Your task to perform on an android device: turn smart compose on in the gmail app Image 0: 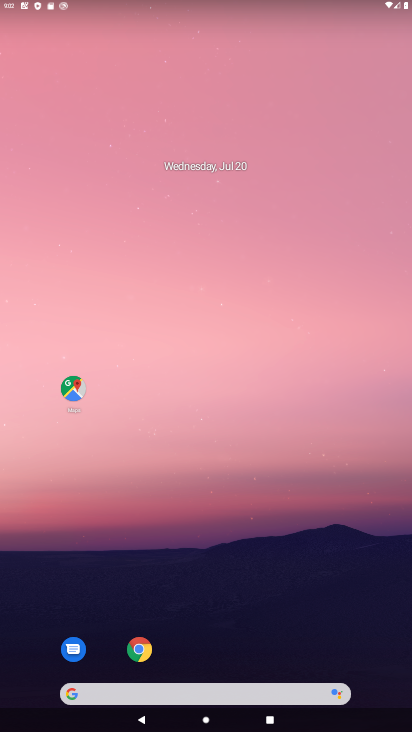
Step 0: drag from (289, 634) to (286, 52)
Your task to perform on an android device: turn smart compose on in the gmail app Image 1: 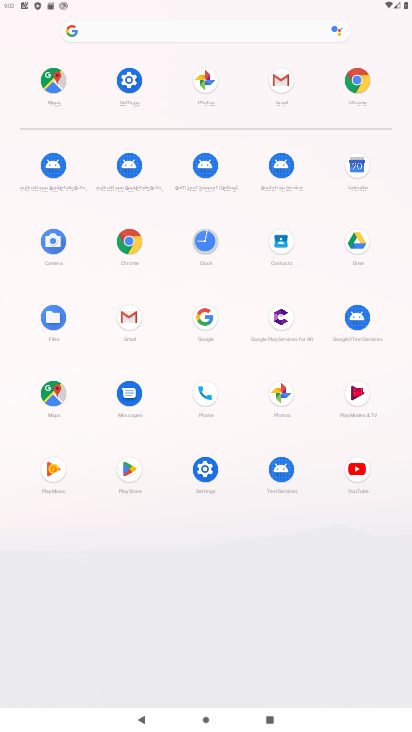
Step 1: click (272, 94)
Your task to perform on an android device: turn smart compose on in the gmail app Image 2: 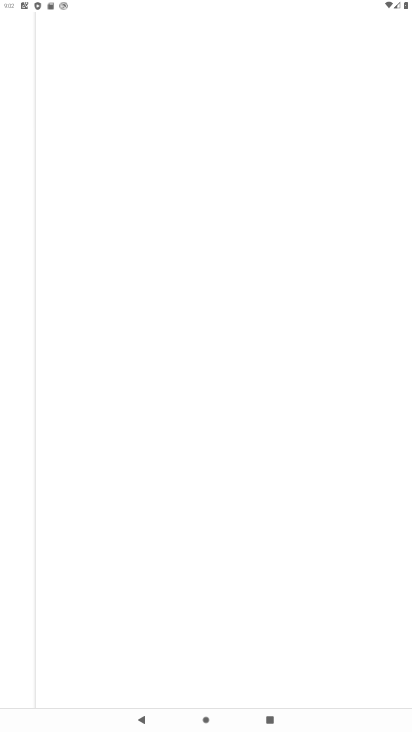
Step 2: task complete